Your task to perform on an android device: change the clock display to analog Image 0: 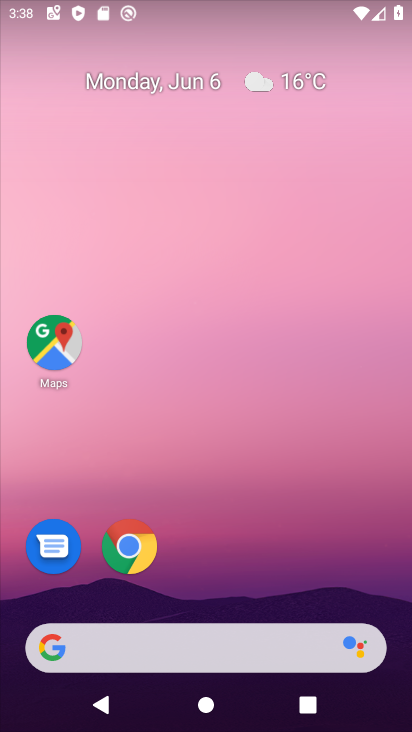
Step 0: drag from (346, 512) to (353, 13)
Your task to perform on an android device: change the clock display to analog Image 1: 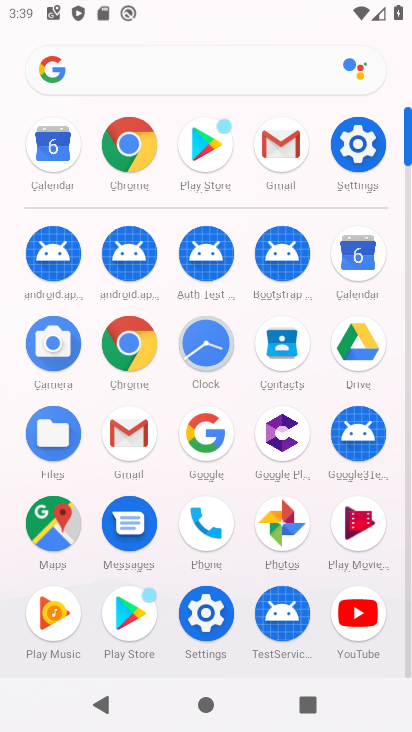
Step 1: click (203, 325)
Your task to perform on an android device: change the clock display to analog Image 2: 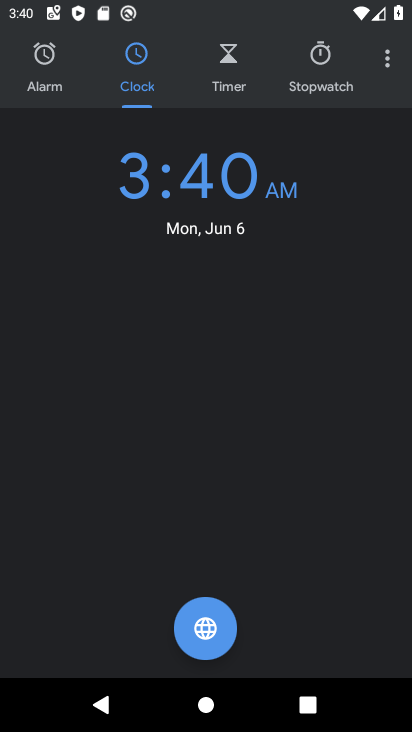
Step 2: click (391, 56)
Your task to perform on an android device: change the clock display to analog Image 3: 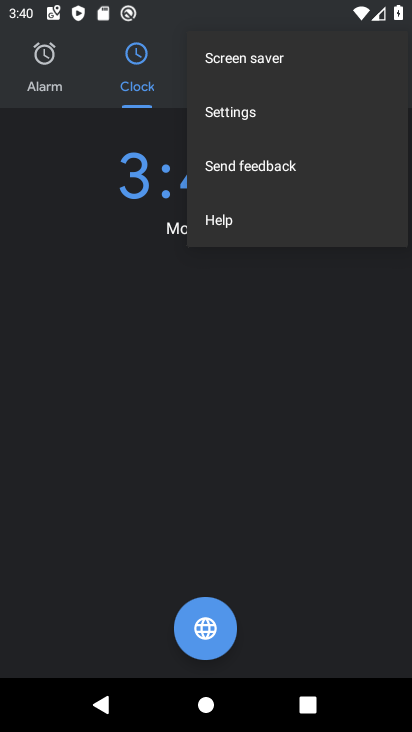
Step 3: click (209, 108)
Your task to perform on an android device: change the clock display to analog Image 4: 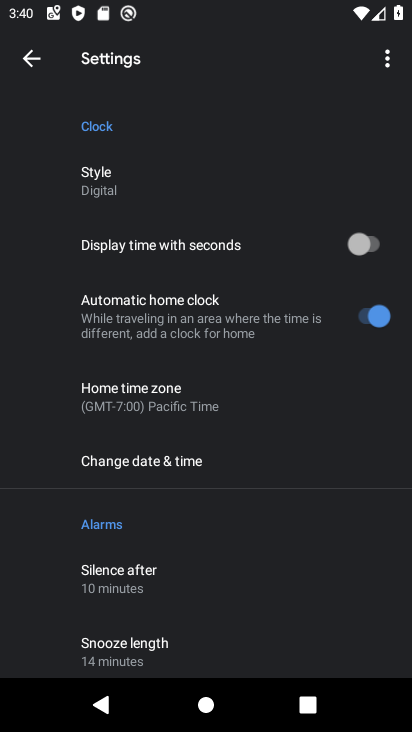
Step 4: click (109, 180)
Your task to perform on an android device: change the clock display to analog Image 5: 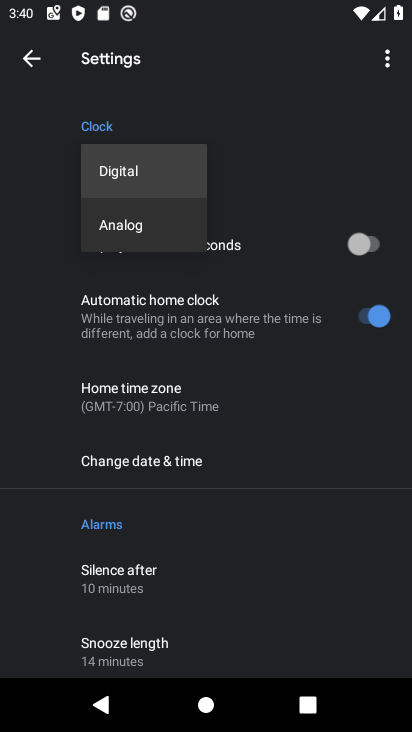
Step 5: click (128, 230)
Your task to perform on an android device: change the clock display to analog Image 6: 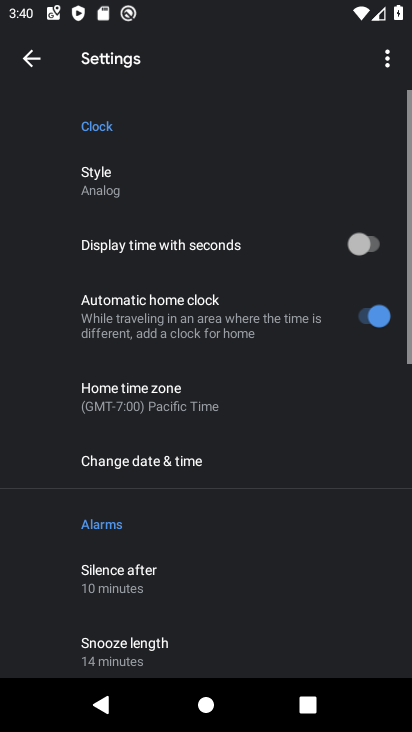
Step 6: task complete